Your task to perform on an android device: change text size in settings app Image 0: 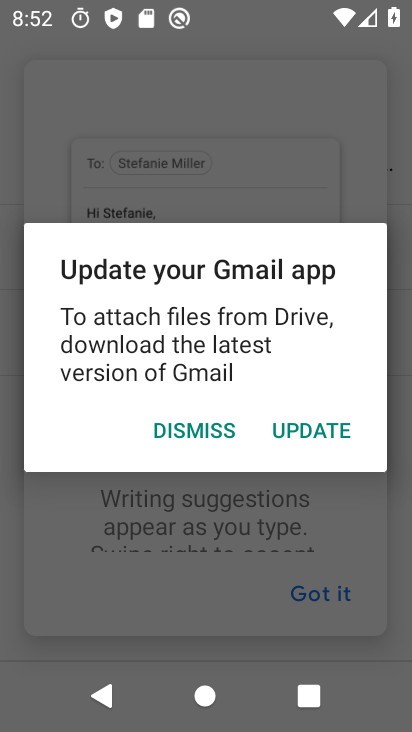
Step 0: press home button
Your task to perform on an android device: change text size in settings app Image 1: 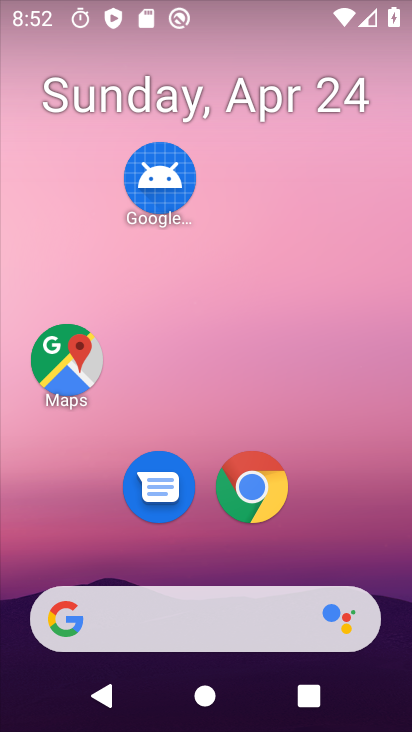
Step 1: drag from (312, 499) to (296, 117)
Your task to perform on an android device: change text size in settings app Image 2: 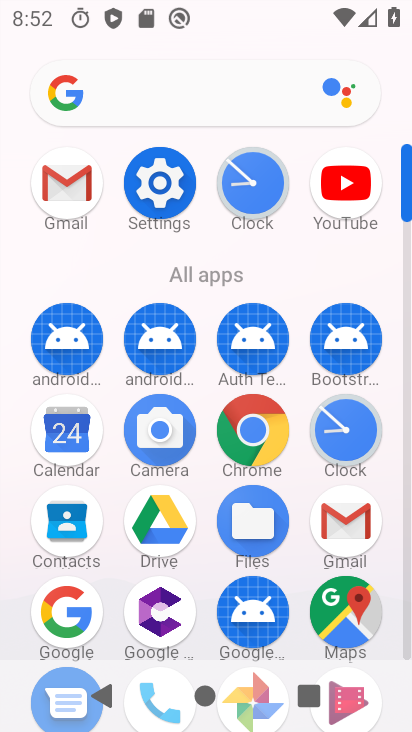
Step 2: click (177, 177)
Your task to perform on an android device: change text size in settings app Image 3: 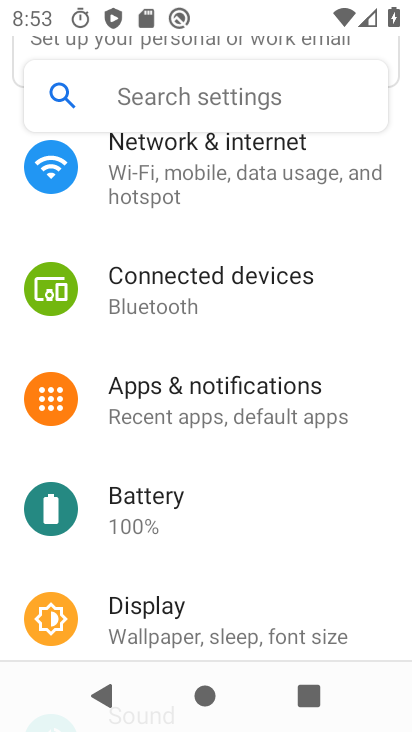
Step 3: click (175, 628)
Your task to perform on an android device: change text size in settings app Image 4: 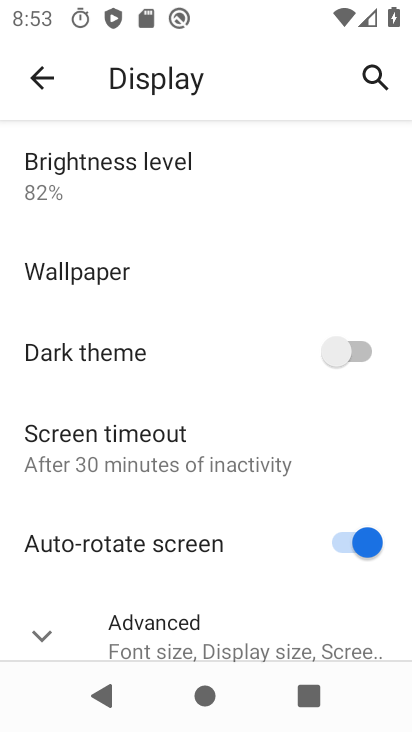
Step 4: click (176, 633)
Your task to perform on an android device: change text size in settings app Image 5: 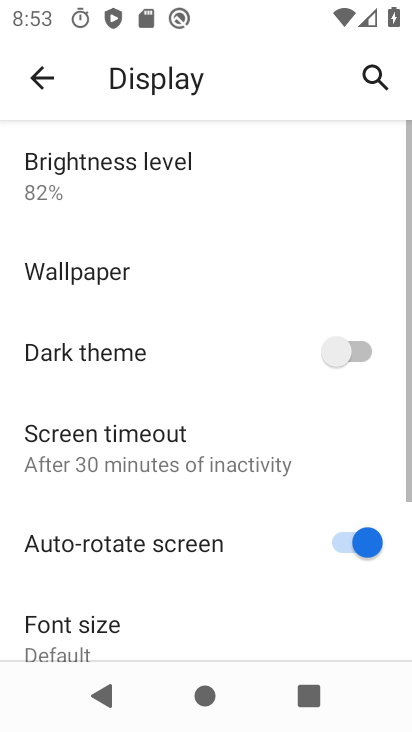
Step 5: click (173, 647)
Your task to perform on an android device: change text size in settings app Image 6: 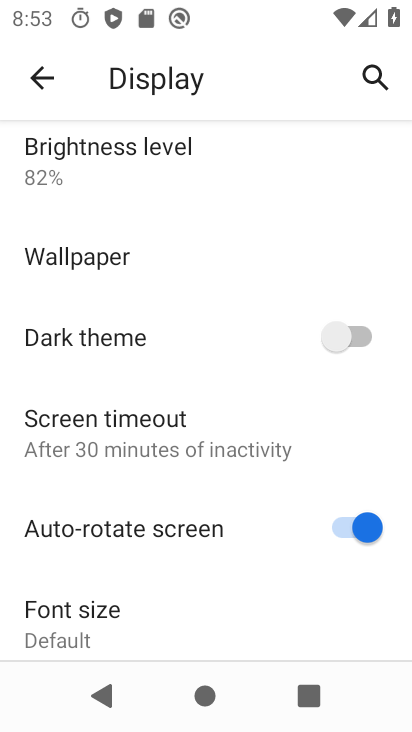
Step 6: click (80, 628)
Your task to perform on an android device: change text size in settings app Image 7: 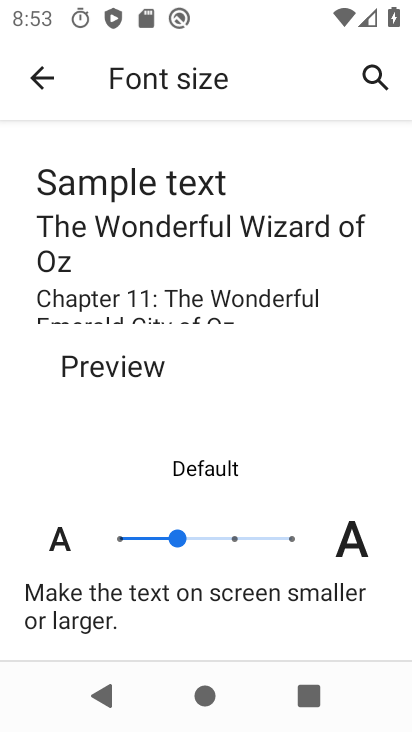
Step 7: click (113, 536)
Your task to perform on an android device: change text size in settings app Image 8: 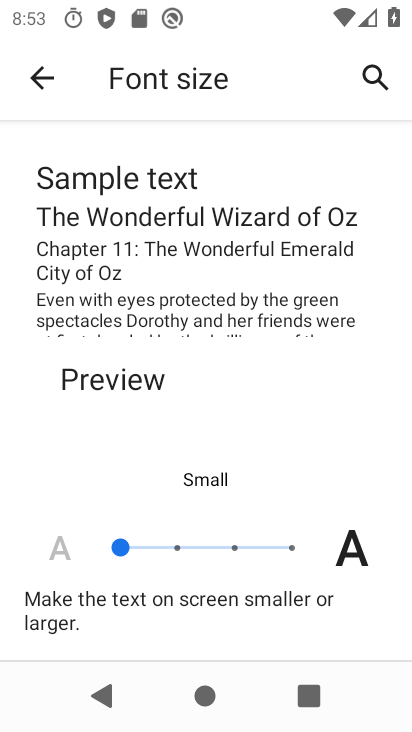
Step 8: task complete